Your task to perform on an android device: open chrome privacy settings Image 0: 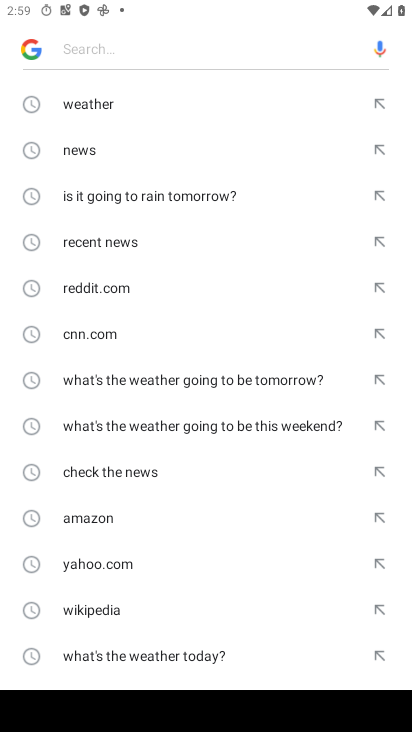
Step 0: press home button
Your task to perform on an android device: open chrome privacy settings Image 1: 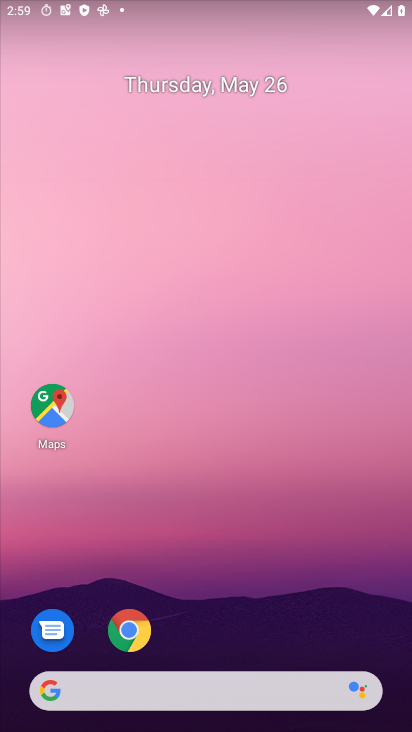
Step 1: click (119, 627)
Your task to perform on an android device: open chrome privacy settings Image 2: 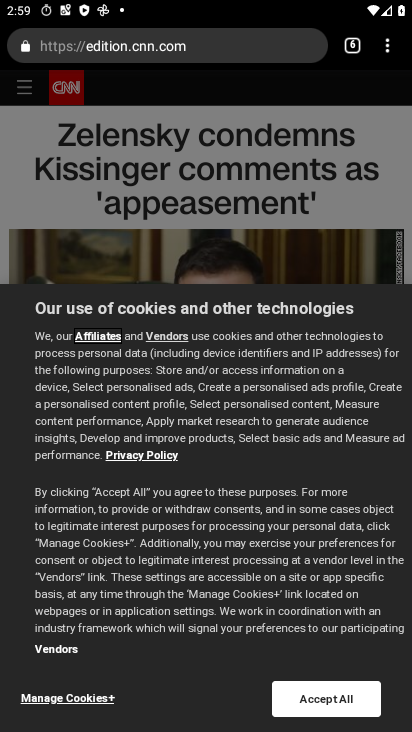
Step 2: click (382, 53)
Your task to perform on an android device: open chrome privacy settings Image 3: 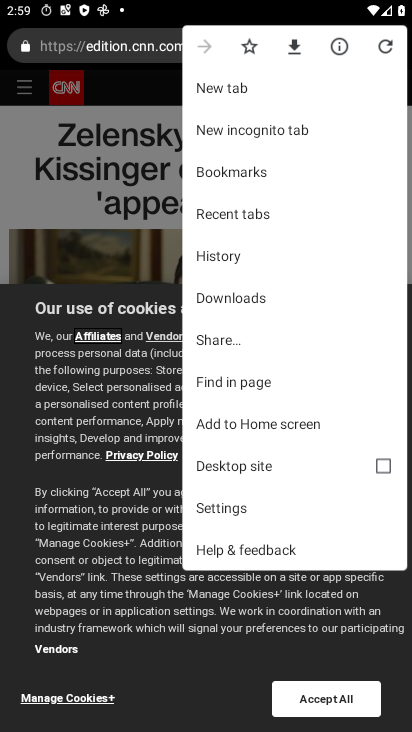
Step 3: click (237, 504)
Your task to perform on an android device: open chrome privacy settings Image 4: 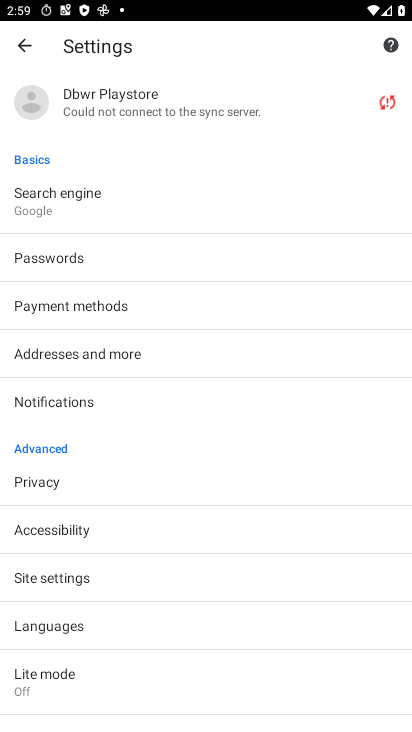
Step 4: click (70, 480)
Your task to perform on an android device: open chrome privacy settings Image 5: 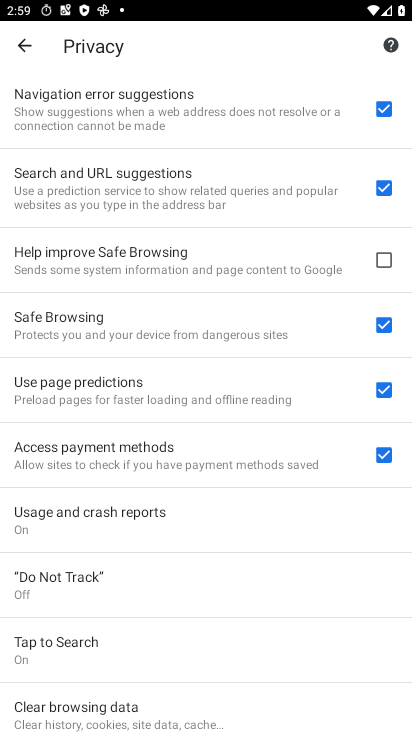
Step 5: task complete